Your task to perform on an android device: turn off picture-in-picture Image 0: 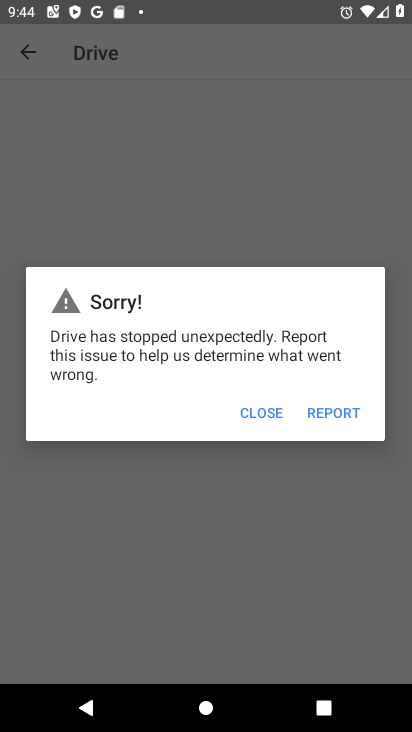
Step 0: press home button
Your task to perform on an android device: turn off picture-in-picture Image 1: 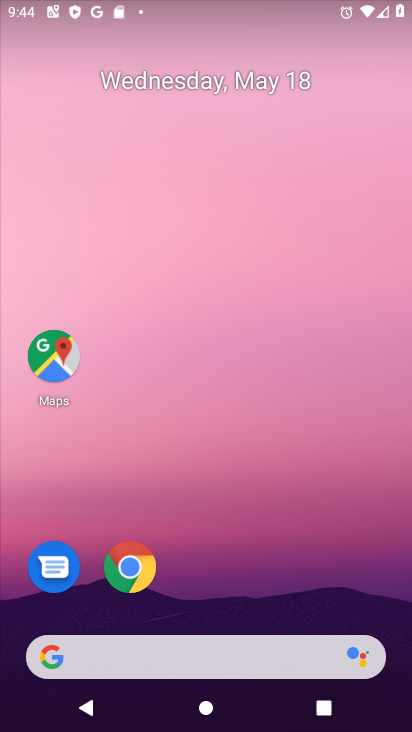
Step 1: click (133, 572)
Your task to perform on an android device: turn off picture-in-picture Image 2: 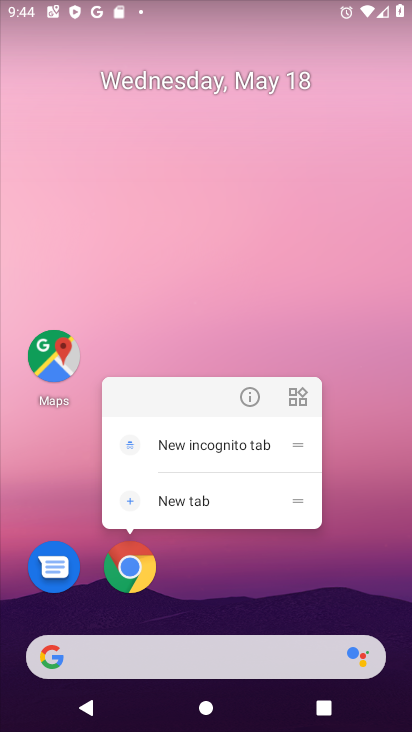
Step 2: click (142, 574)
Your task to perform on an android device: turn off picture-in-picture Image 3: 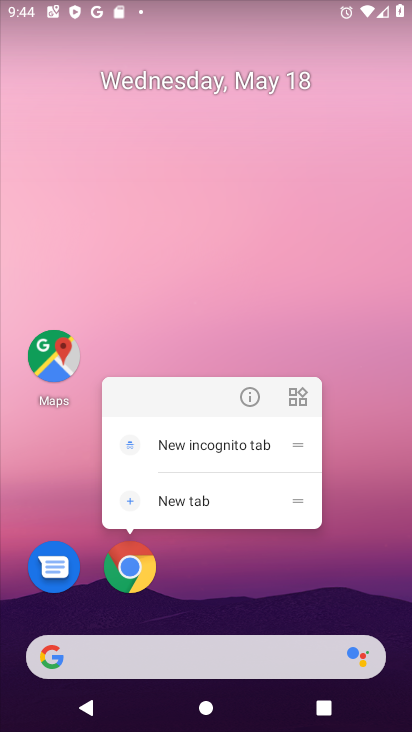
Step 3: click (251, 396)
Your task to perform on an android device: turn off picture-in-picture Image 4: 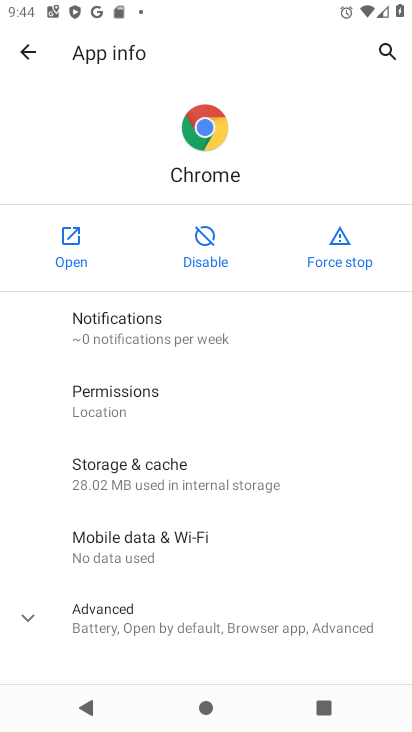
Step 4: click (207, 617)
Your task to perform on an android device: turn off picture-in-picture Image 5: 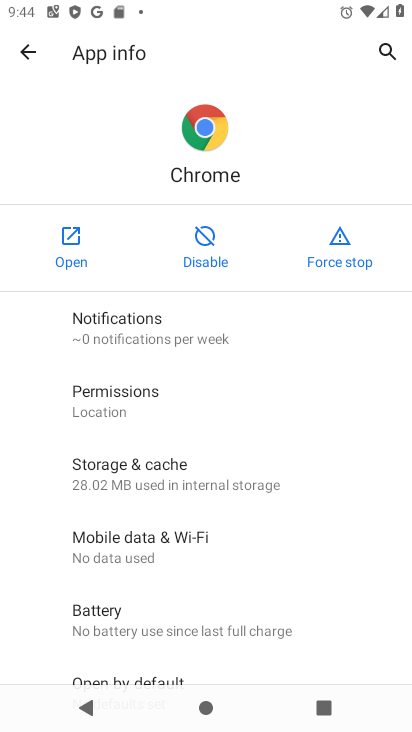
Step 5: drag from (171, 506) to (151, 136)
Your task to perform on an android device: turn off picture-in-picture Image 6: 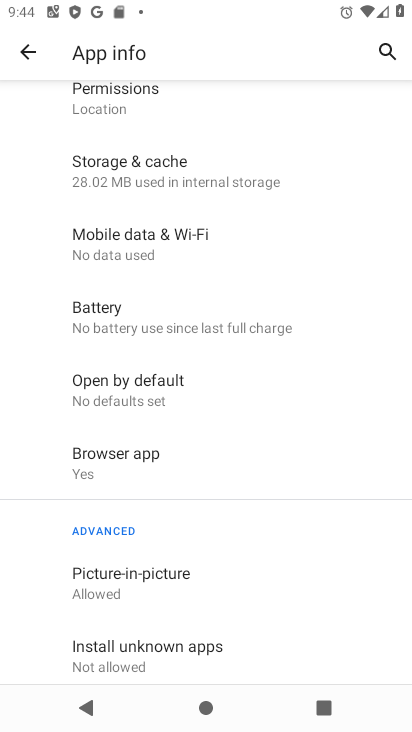
Step 6: click (156, 579)
Your task to perform on an android device: turn off picture-in-picture Image 7: 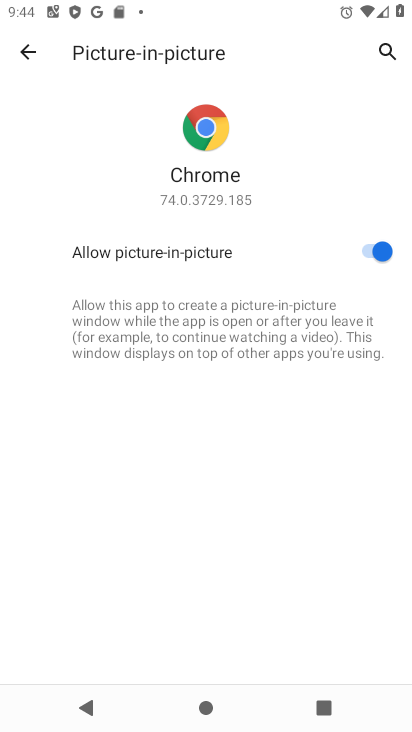
Step 7: click (381, 254)
Your task to perform on an android device: turn off picture-in-picture Image 8: 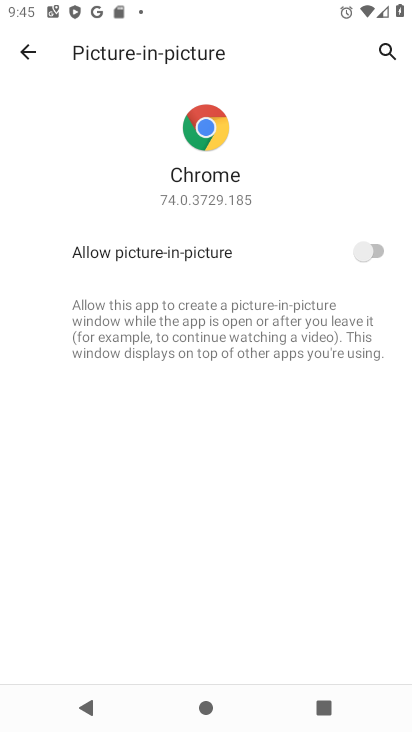
Step 8: task complete